Your task to perform on an android device: change notifications settings Image 0: 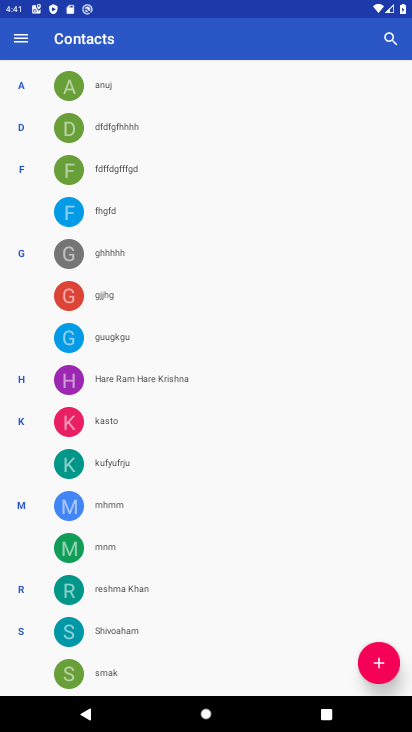
Step 0: press home button
Your task to perform on an android device: change notifications settings Image 1: 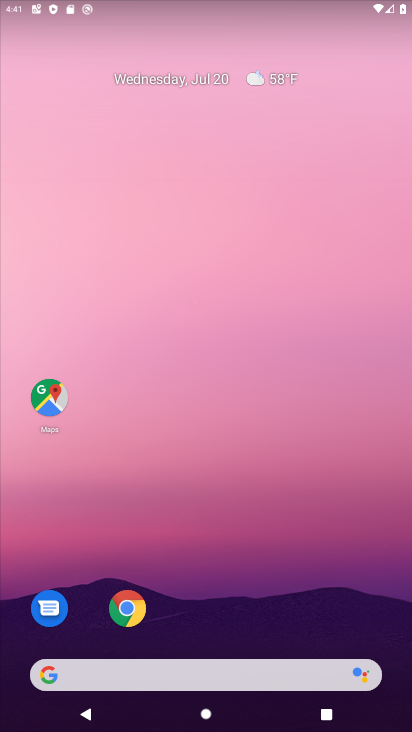
Step 1: drag from (112, 633) to (12, 120)
Your task to perform on an android device: change notifications settings Image 2: 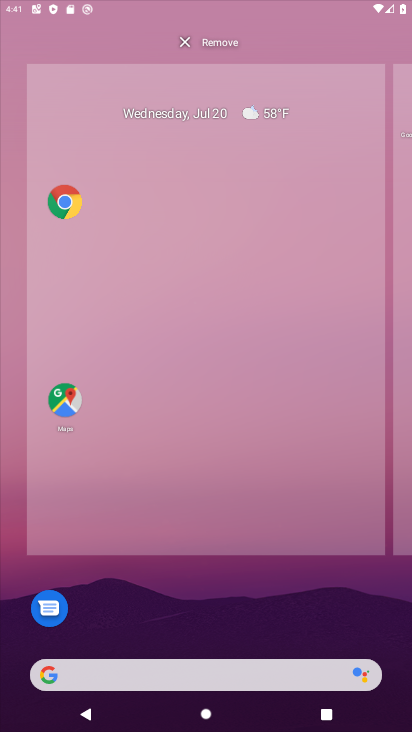
Step 2: click (232, 605)
Your task to perform on an android device: change notifications settings Image 3: 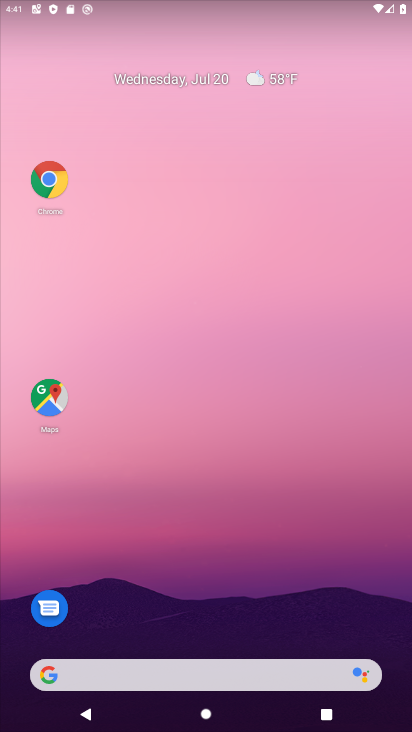
Step 3: drag from (232, 605) to (134, 20)
Your task to perform on an android device: change notifications settings Image 4: 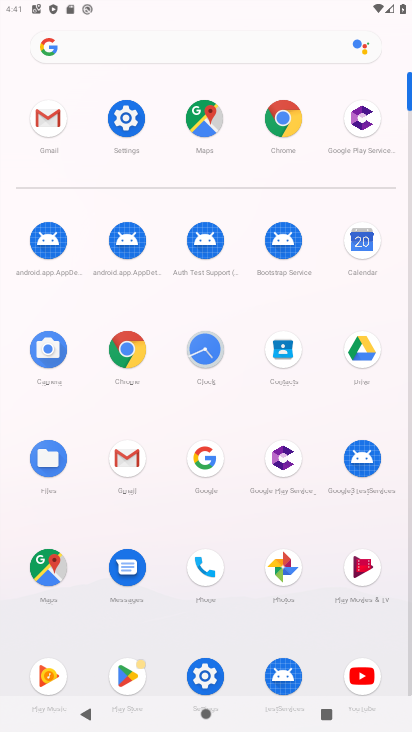
Step 4: click (121, 113)
Your task to perform on an android device: change notifications settings Image 5: 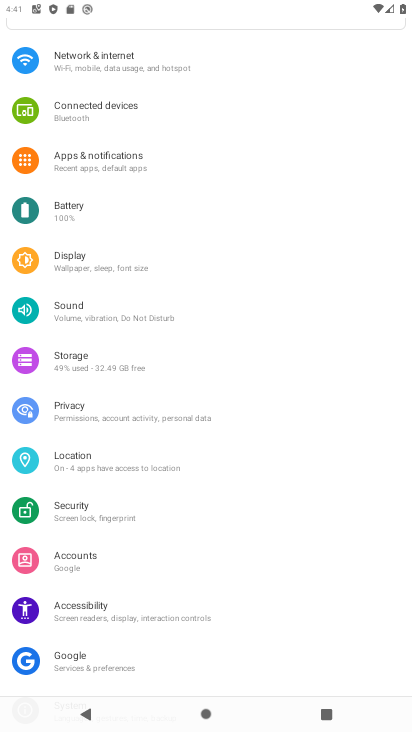
Step 5: click (142, 155)
Your task to perform on an android device: change notifications settings Image 6: 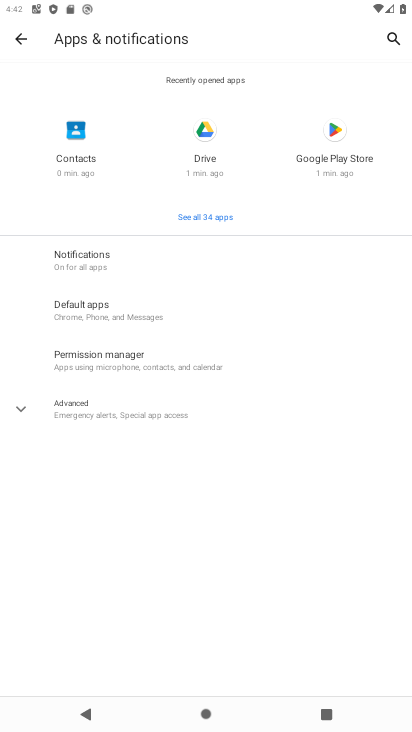
Step 6: click (68, 262)
Your task to perform on an android device: change notifications settings Image 7: 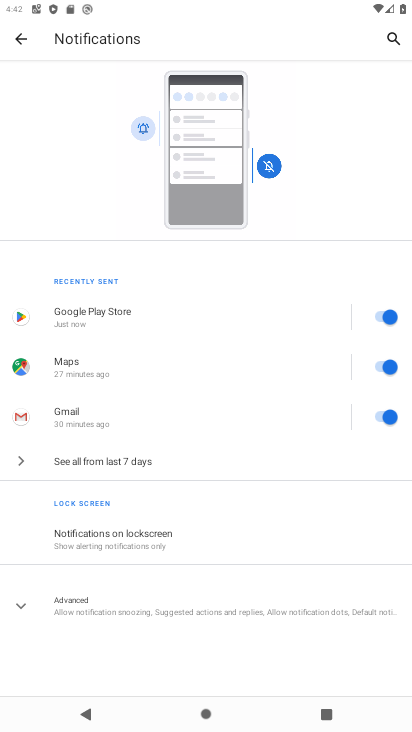
Step 7: click (151, 600)
Your task to perform on an android device: change notifications settings Image 8: 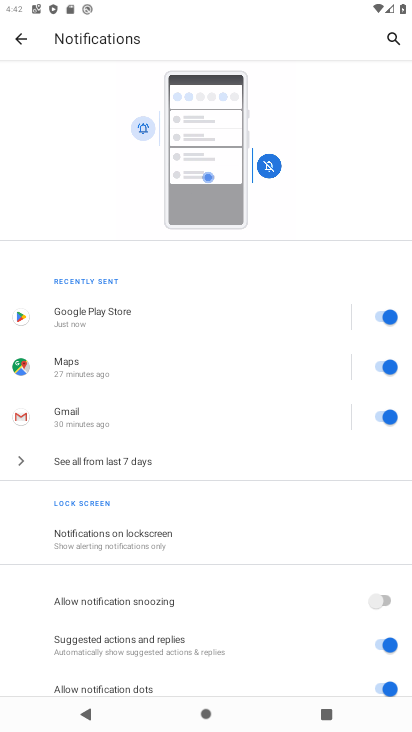
Step 8: click (102, 456)
Your task to perform on an android device: change notifications settings Image 9: 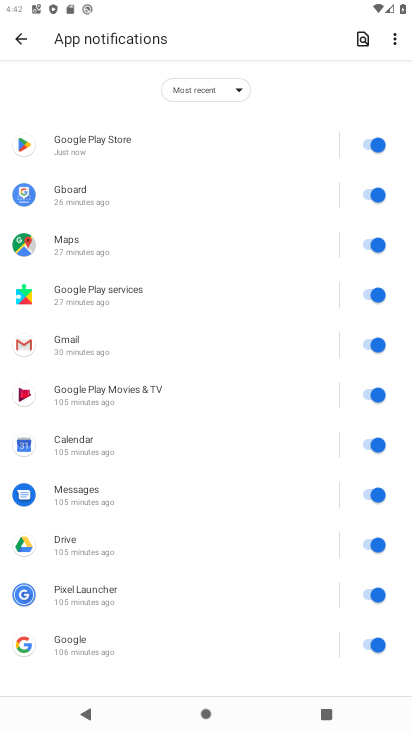
Step 9: click (214, 88)
Your task to perform on an android device: change notifications settings Image 10: 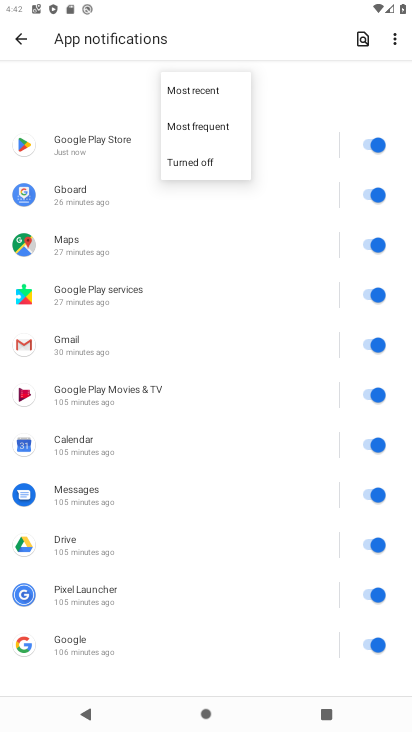
Step 10: click (201, 160)
Your task to perform on an android device: change notifications settings Image 11: 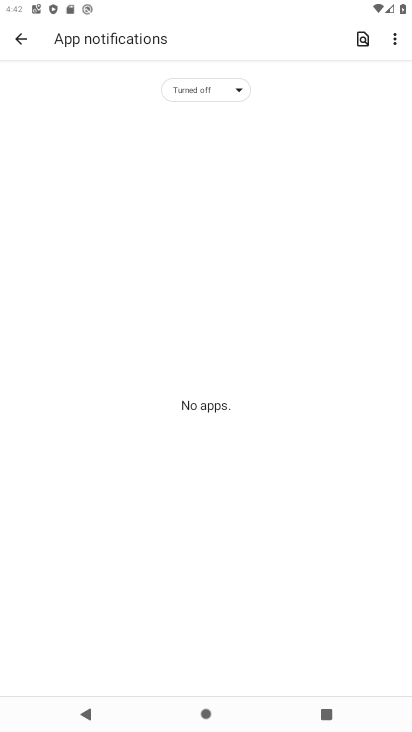
Step 11: task complete